Your task to perform on an android device: Go to Yahoo.com Image 0: 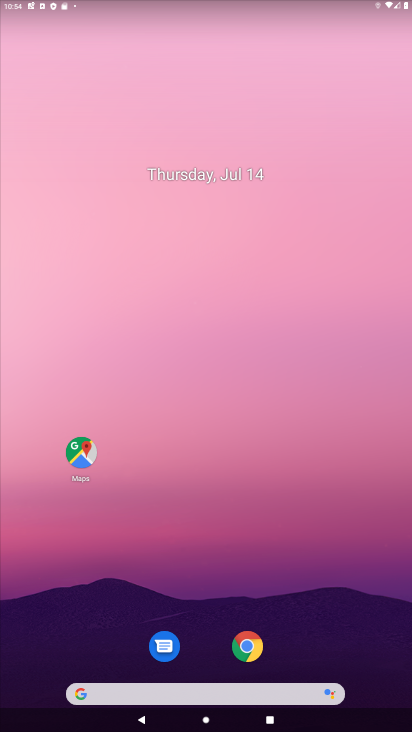
Step 0: click (241, 639)
Your task to perform on an android device: Go to Yahoo.com Image 1: 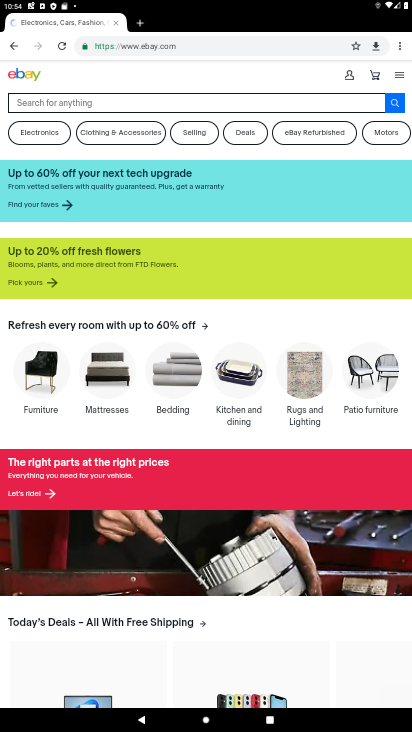
Step 1: click (142, 24)
Your task to perform on an android device: Go to Yahoo.com Image 2: 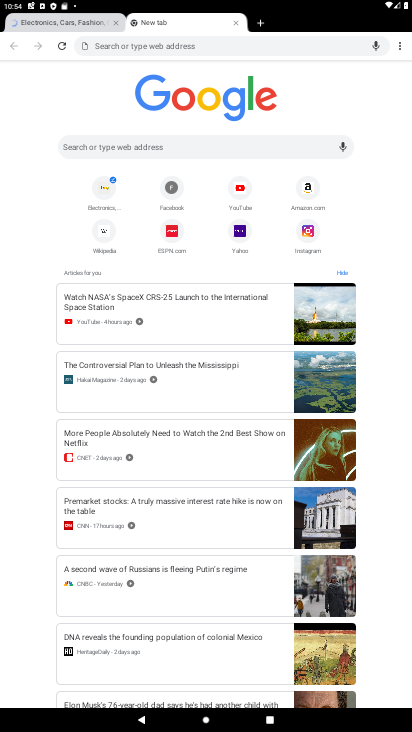
Step 2: click (244, 227)
Your task to perform on an android device: Go to Yahoo.com Image 3: 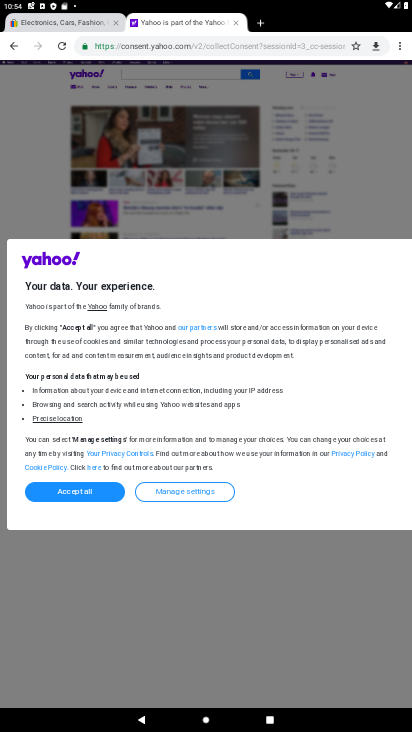
Step 3: task complete